Your task to perform on an android device: Go to display settings Image 0: 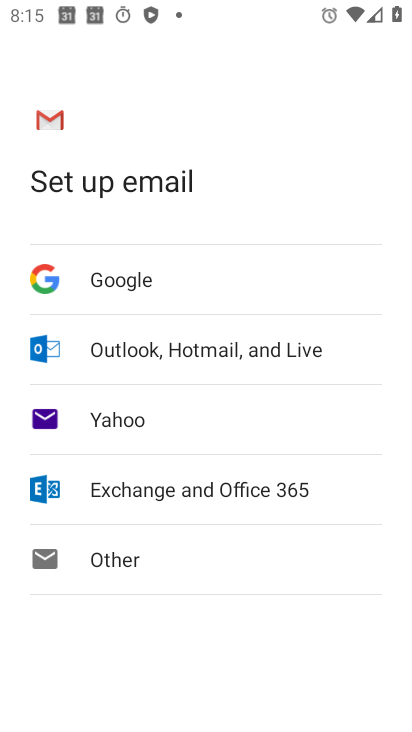
Step 0: press home button
Your task to perform on an android device: Go to display settings Image 1: 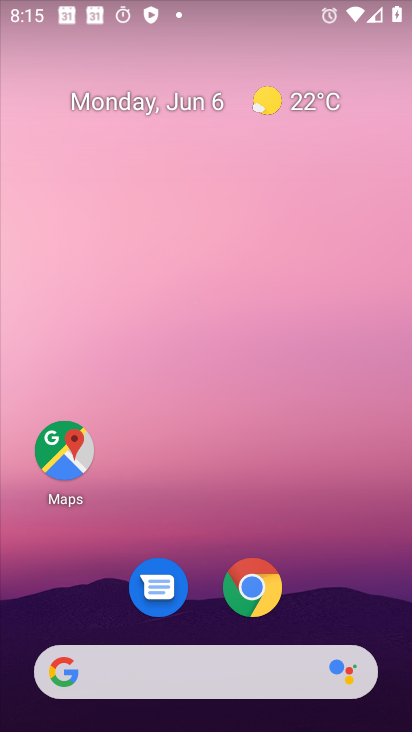
Step 1: drag from (197, 640) to (237, 284)
Your task to perform on an android device: Go to display settings Image 2: 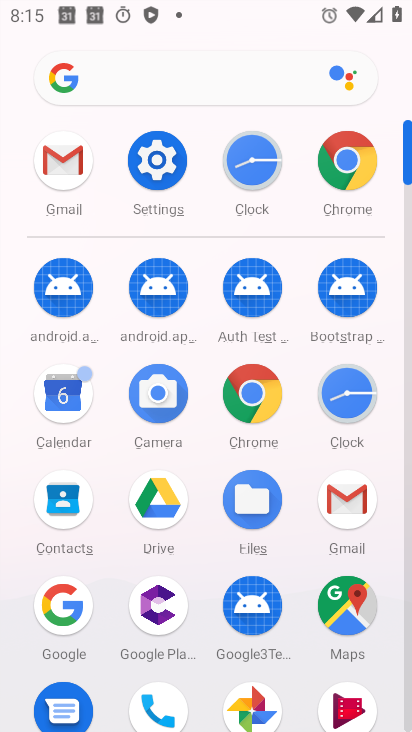
Step 2: click (146, 162)
Your task to perform on an android device: Go to display settings Image 3: 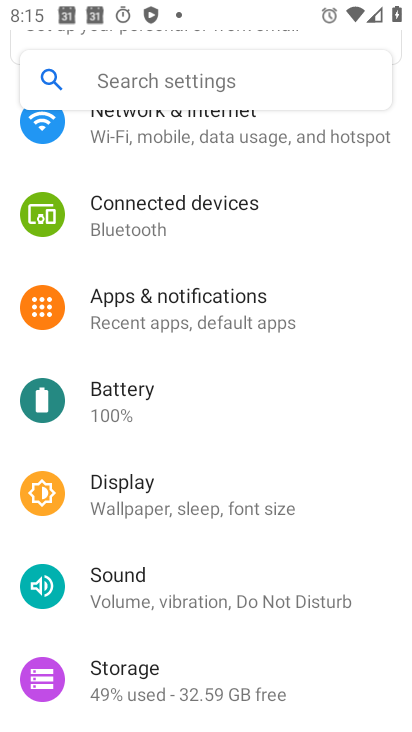
Step 3: click (142, 505)
Your task to perform on an android device: Go to display settings Image 4: 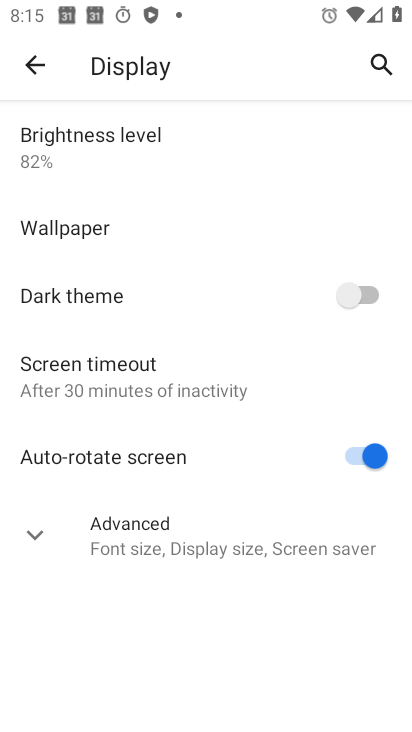
Step 4: click (170, 537)
Your task to perform on an android device: Go to display settings Image 5: 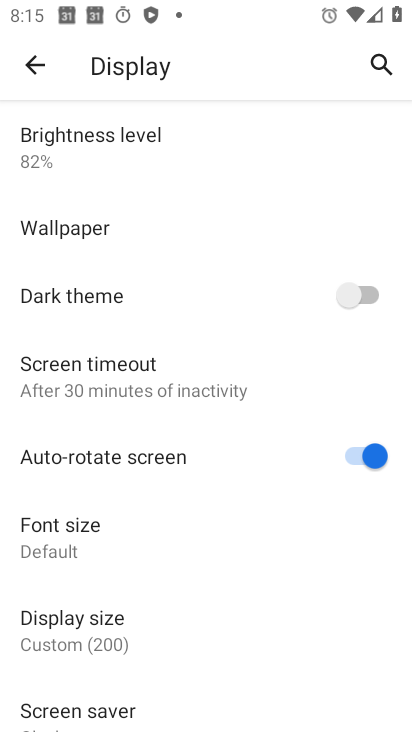
Step 5: task complete